Your task to perform on an android device: add a contact Image 0: 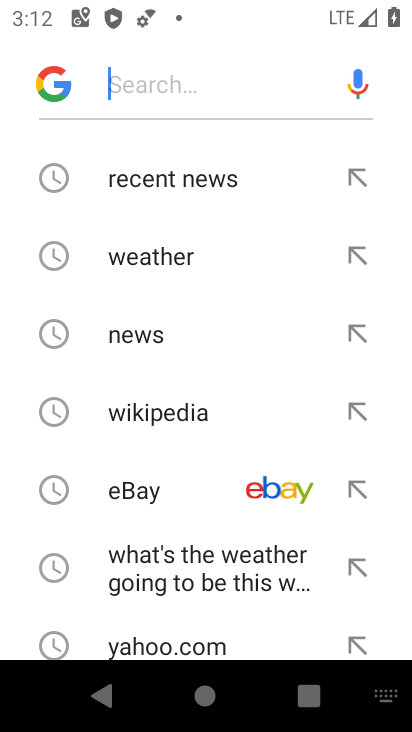
Step 0: press home button
Your task to perform on an android device: add a contact Image 1: 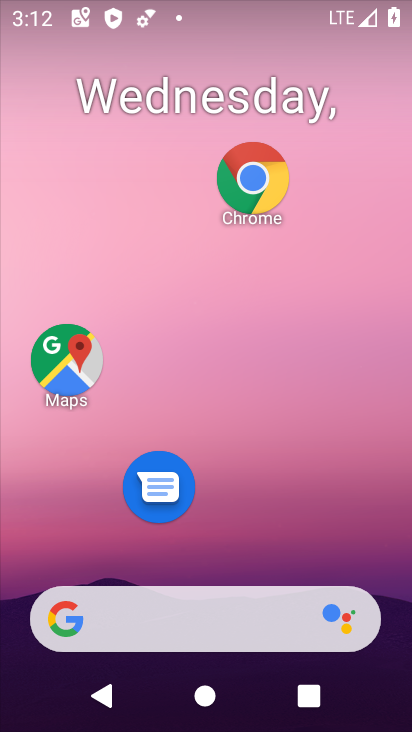
Step 1: drag from (274, 525) to (375, 56)
Your task to perform on an android device: add a contact Image 2: 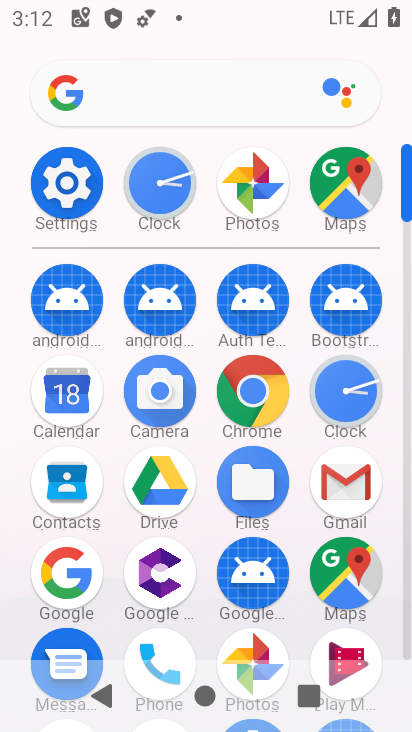
Step 2: click (70, 494)
Your task to perform on an android device: add a contact Image 3: 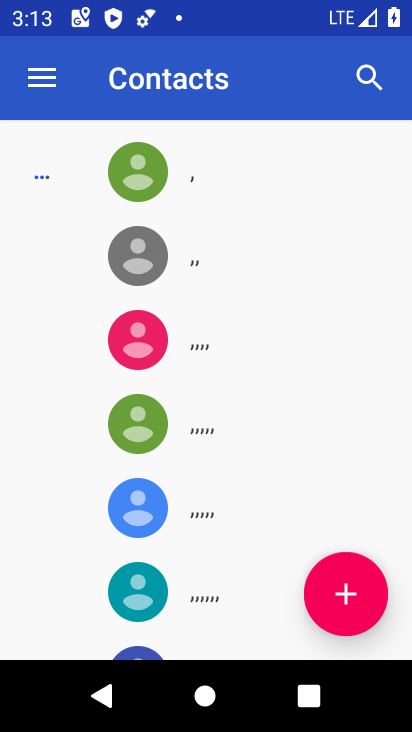
Step 3: click (343, 606)
Your task to perform on an android device: add a contact Image 4: 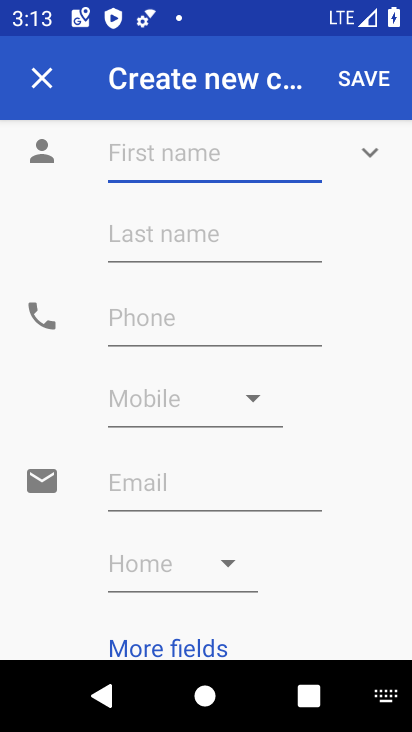
Step 4: type "qazxswedc"
Your task to perform on an android device: add a contact Image 5: 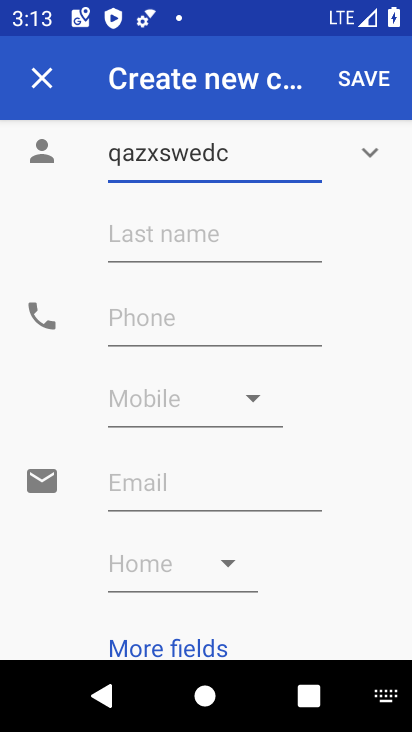
Step 5: click (136, 334)
Your task to perform on an android device: add a contact Image 6: 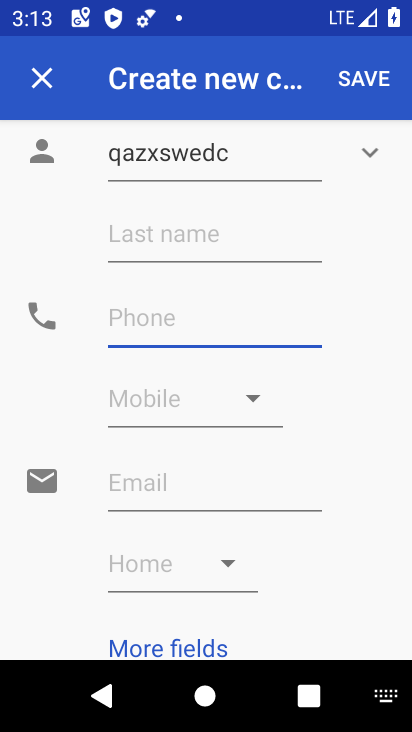
Step 6: type "2313445677"
Your task to perform on an android device: add a contact Image 7: 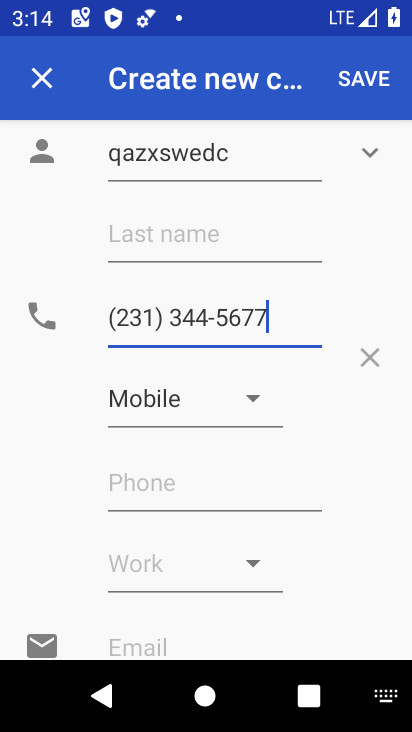
Step 7: click (346, 86)
Your task to perform on an android device: add a contact Image 8: 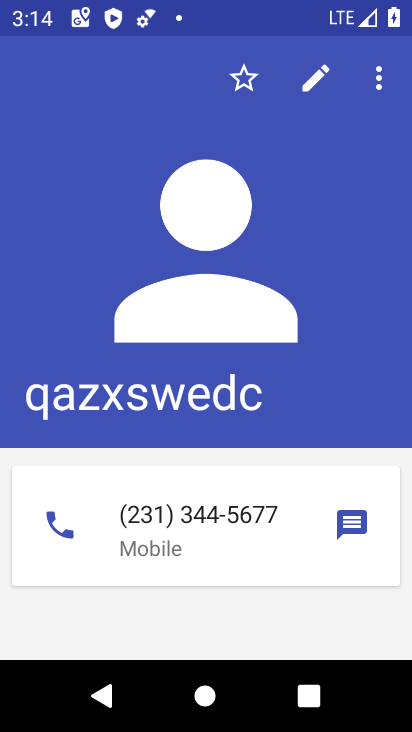
Step 8: task complete